Your task to perform on an android device: toggle show notifications on the lock screen Image 0: 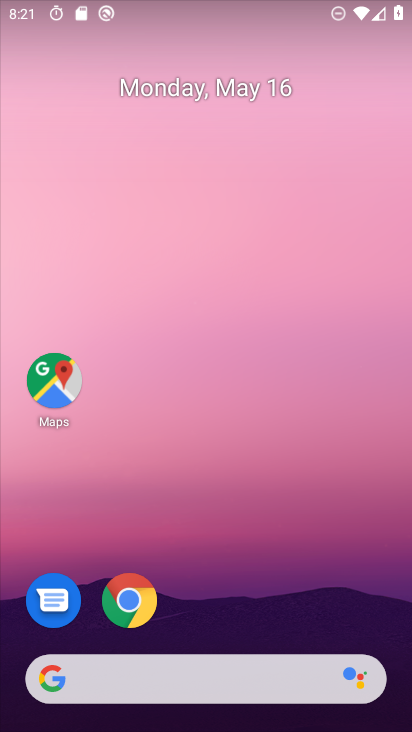
Step 0: drag from (178, 684) to (313, 152)
Your task to perform on an android device: toggle show notifications on the lock screen Image 1: 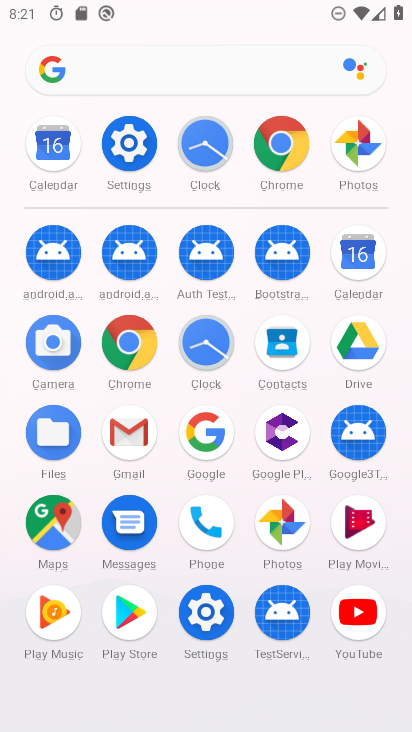
Step 1: click (127, 149)
Your task to perform on an android device: toggle show notifications on the lock screen Image 2: 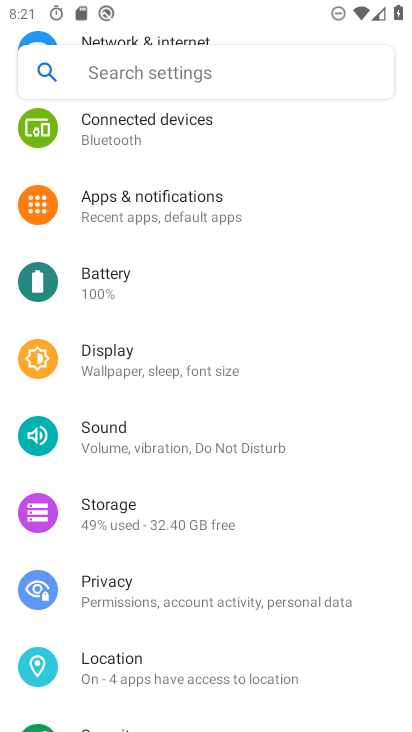
Step 2: click (184, 193)
Your task to perform on an android device: toggle show notifications on the lock screen Image 3: 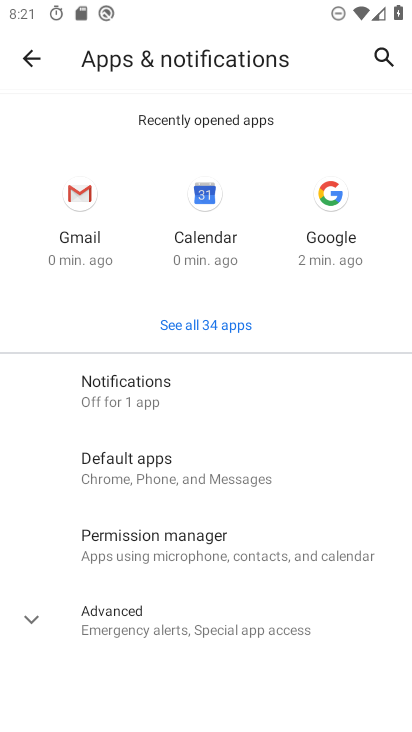
Step 3: click (128, 392)
Your task to perform on an android device: toggle show notifications on the lock screen Image 4: 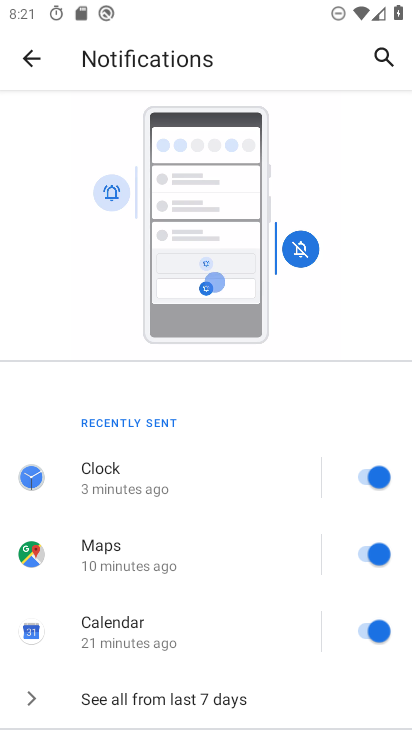
Step 4: drag from (216, 644) to (256, 298)
Your task to perform on an android device: toggle show notifications on the lock screen Image 5: 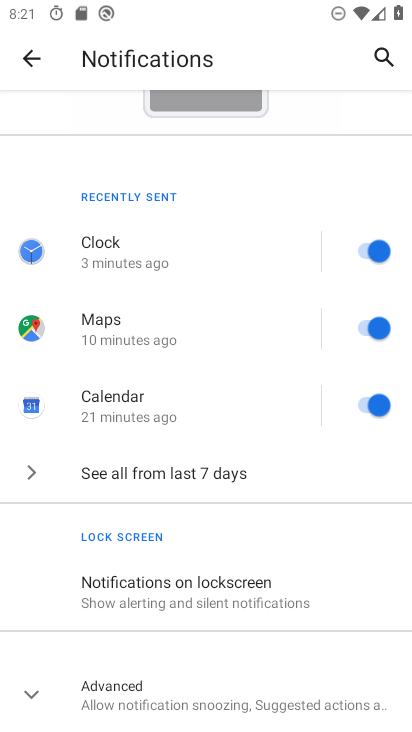
Step 5: click (216, 575)
Your task to perform on an android device: toggle show notifications on the lock screen Image 6: 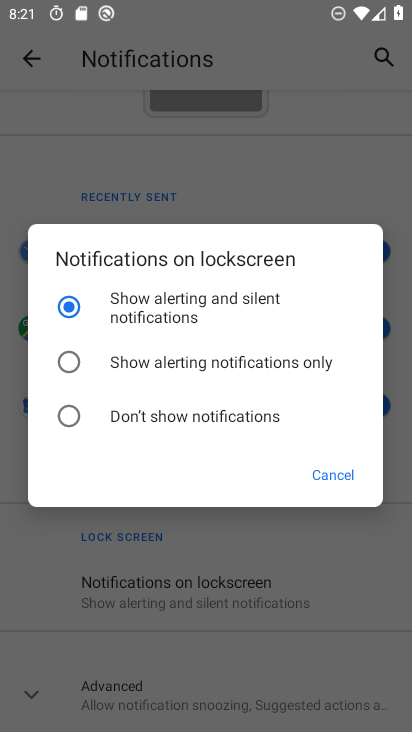
Step 6: click (67, 414)
Your task to perform on an android device: toggle show notifications on the lock screen Image 7: 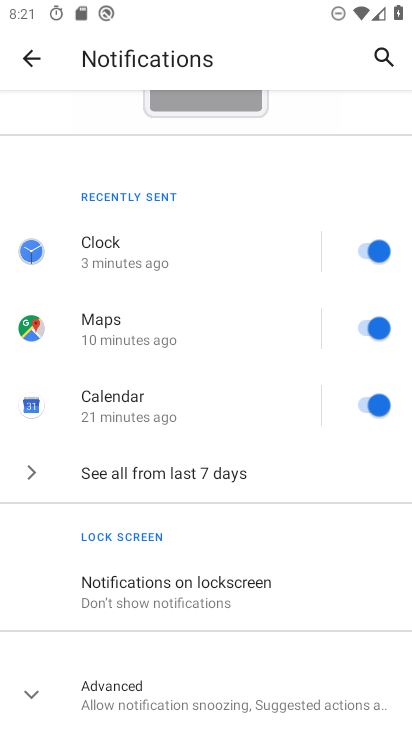
Step 7: task complete